Your task to perform on an android device: change the clock display to digital Image 0: 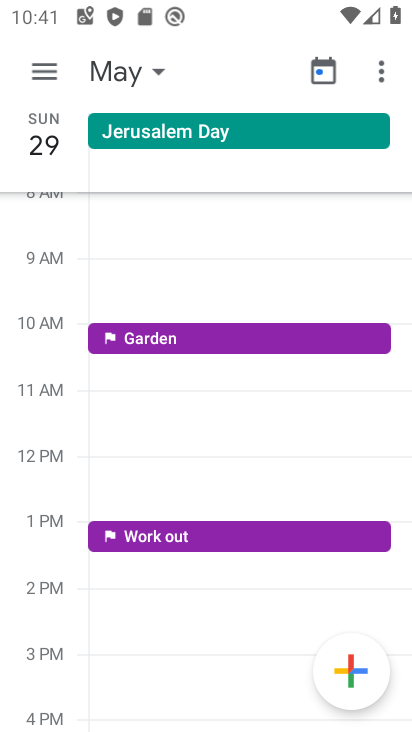
Step 0: press home button
Your task to perform on an android device: change the clock display to digital Image 1: 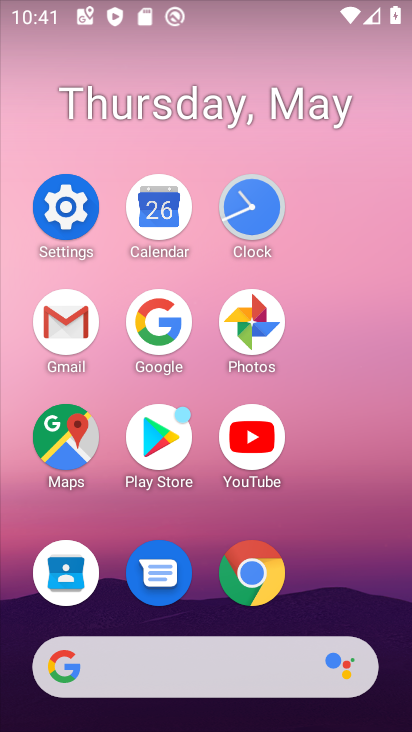
Step 1: click (278, 233)
Your task to perform on an android device: change the clock display to digital Image 2: 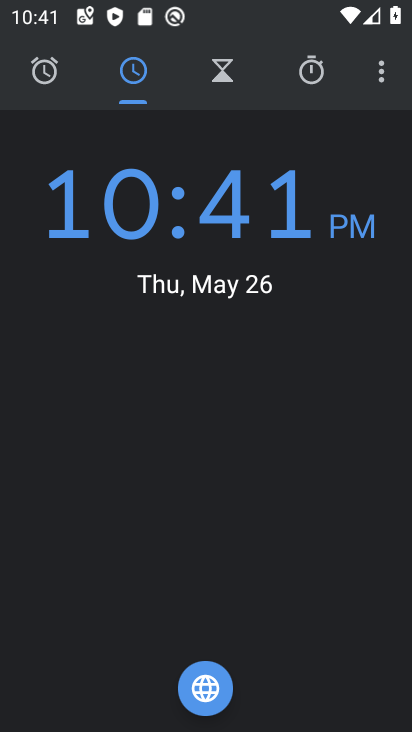
Step 2: click (381, 80)
Your task to perform on an android device: change the clock display to digital Image 3: 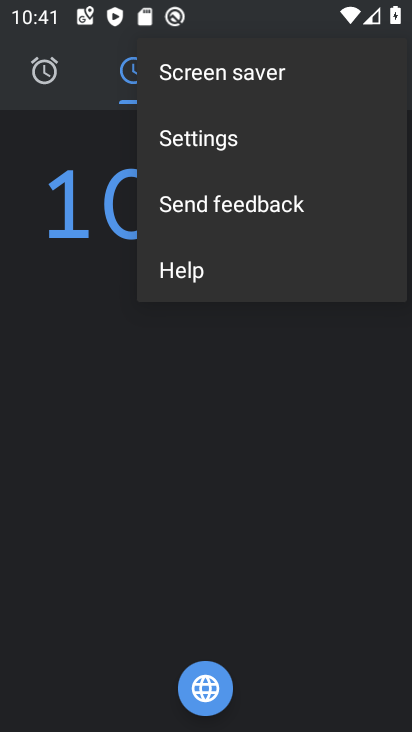
Step 3: click (232, 145)
Your task to perform on an android device: change the clock display to digital Image 4: 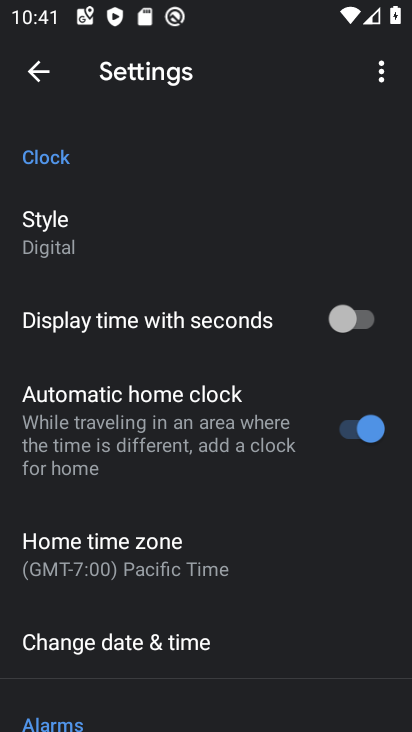
Step 4: task complete